Your task to perform on an android device: turn on the 24-hour format for clock Image 0: 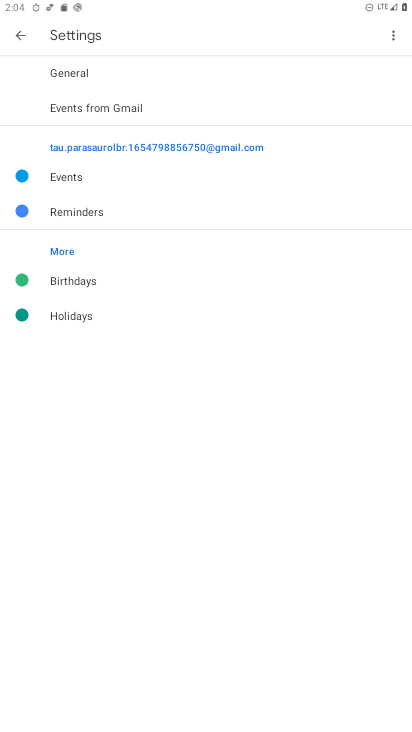
Step 0: press home button
Your task to perform on an android device: turn on the 24-hour format for clock Image 1: 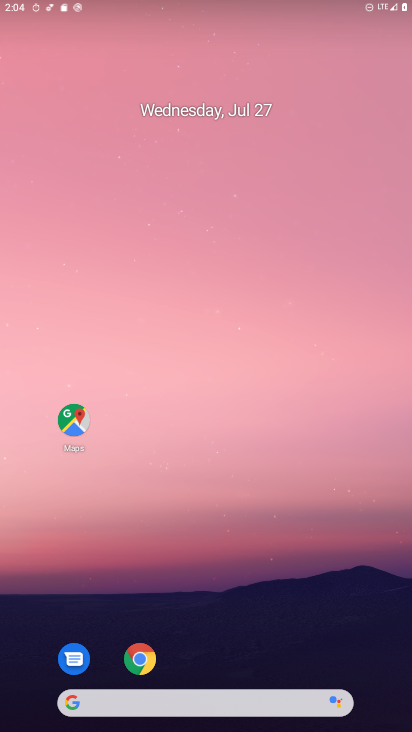
Step 1: drag from (316, 584) to (284, 47)
Your task to perform on an android device: turn on the 24-hour format for clock Image 2: 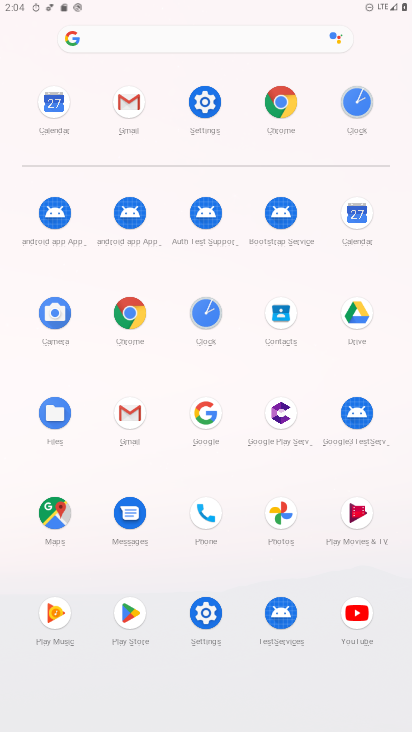
Step 2: click (209, 314)
Your task to perform on an android device: turn on the 24-hour format for clock Image 3: 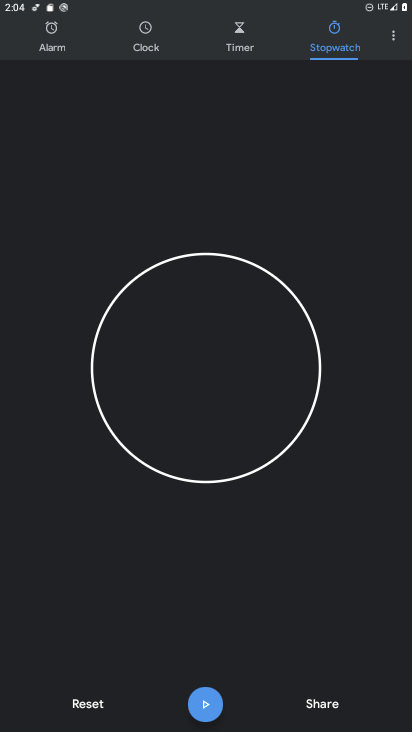
Step 3: click (392, 34)
Your task to perform on an android device: turn on the 24-hour format for clock Image 4: 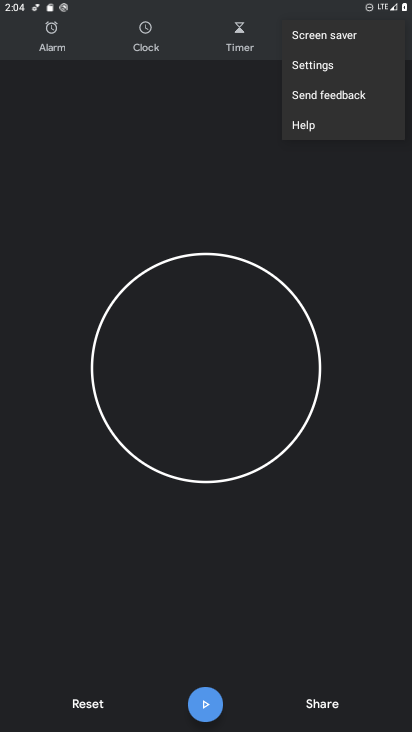
Step 4: click (326, 65)
Your task to perform on an android device: turn on the 24-hour format for clock Image 5: 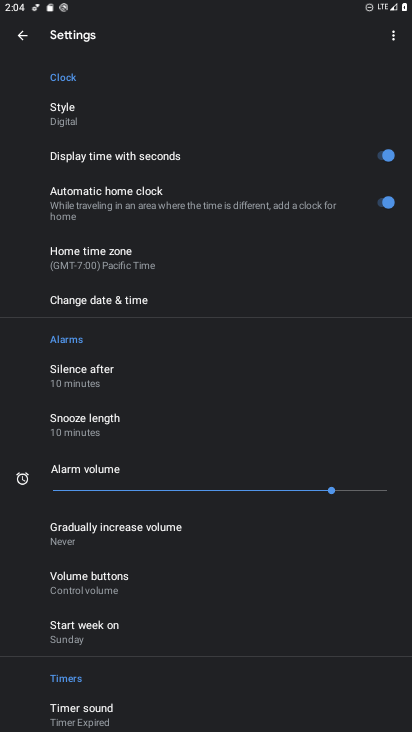
Step 5: click (120, 303)
Your task to perform on an android device: turn on the 24-hour format for clock Image 6: 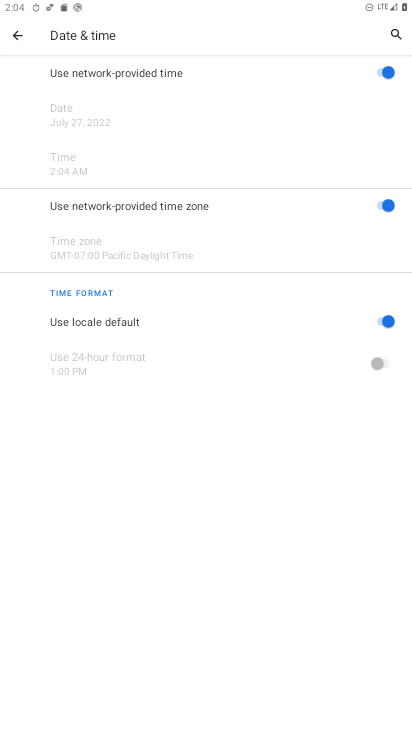
Step 6: click (384, 319)
Your task to perform on an android device: turn on the 24-hour format for clock Image 7: 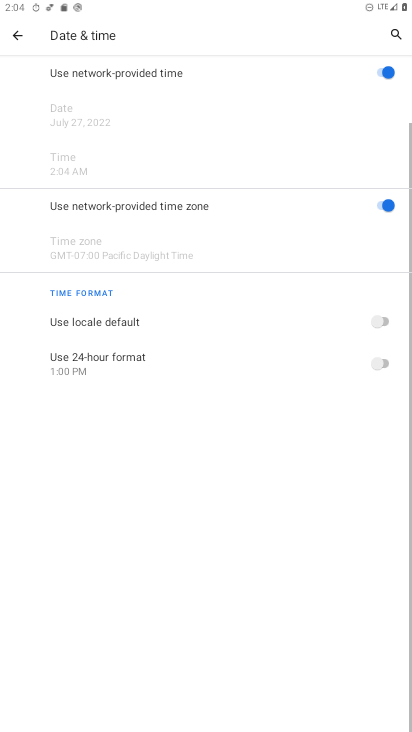
Step 7: click (371, 364)
Your task to perform on an android device: turn on the 24-hour format for clock Image 8: 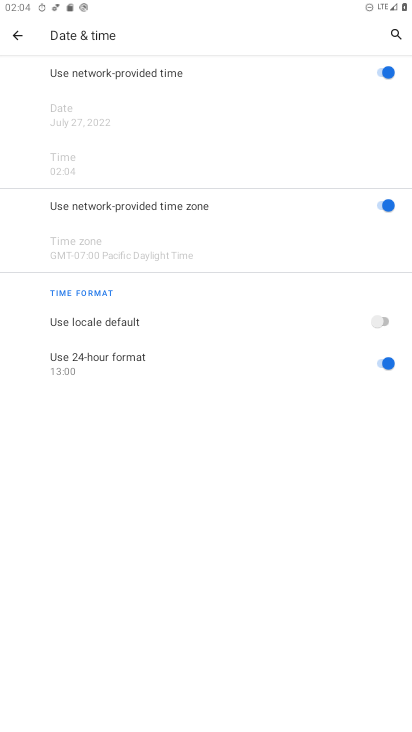
Step 8: task complete